Your task to perform on an android device: change the clock display to digital Image 0: 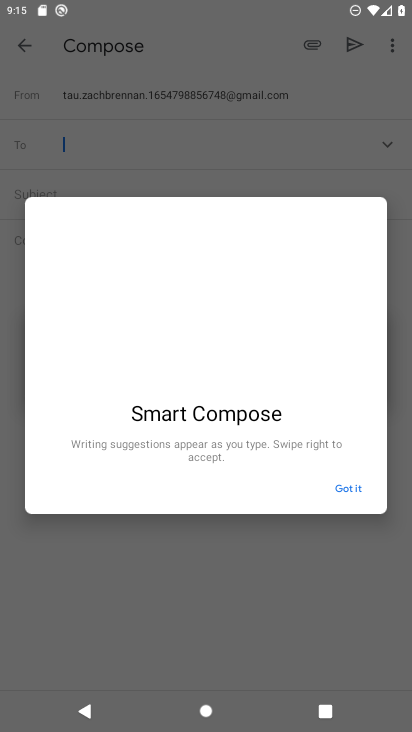
Step 0: press home button
Your task to perform on an android device: change the clock display to digital Image 1: 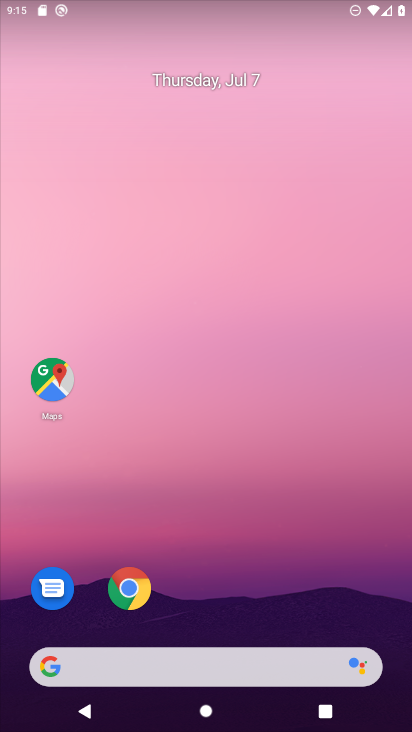
Step 1: drag from (197, 615) to (252, 107)
Your task to perform on an android device: change the clock display to digital Image 2: 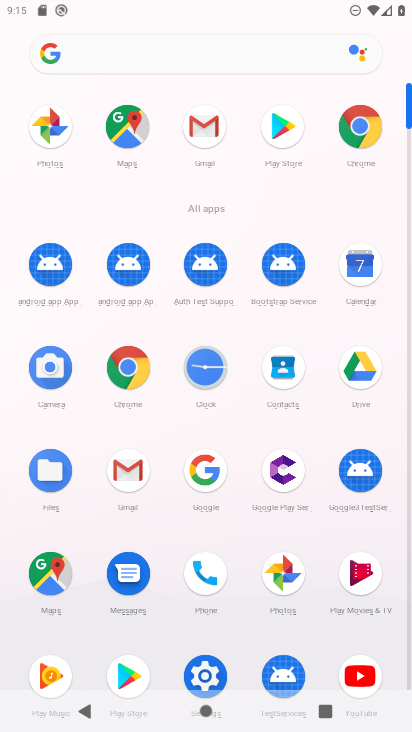
Step 2: click (217, 381)
Your task to perform on an android device: change the clock display to digital Image 3: 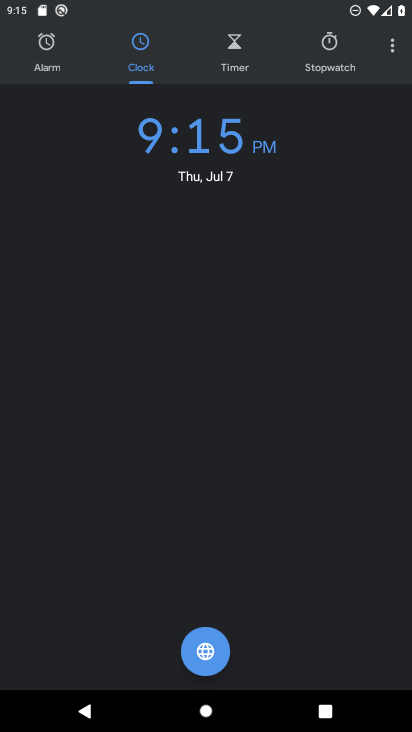
Step 3: click (403, 51)
Your task to perform on an android device: change the clock display to digital Image 4: 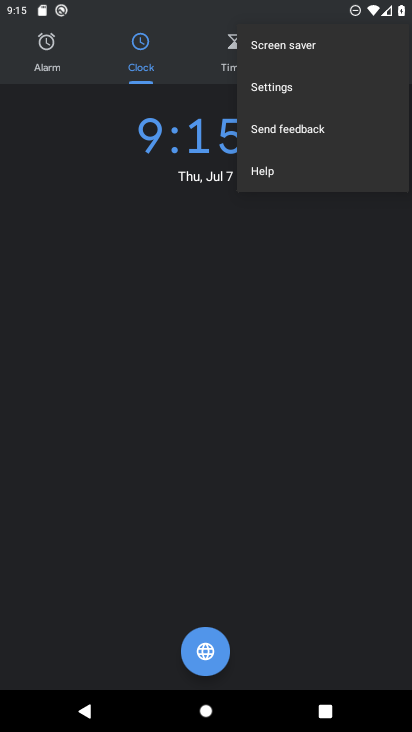
Step 4: click (317, 78)
Your task to perform on an android device: change the clock display to digital Image 5: 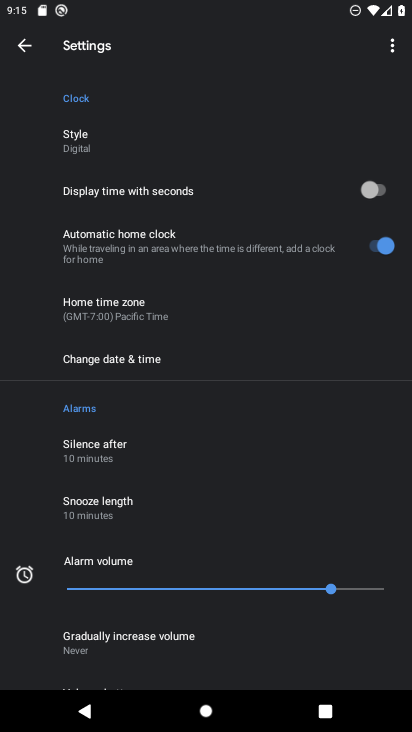
Step 5: click (123, 152)
Your task to perform on an android device: change the clock display to digital Image 6: 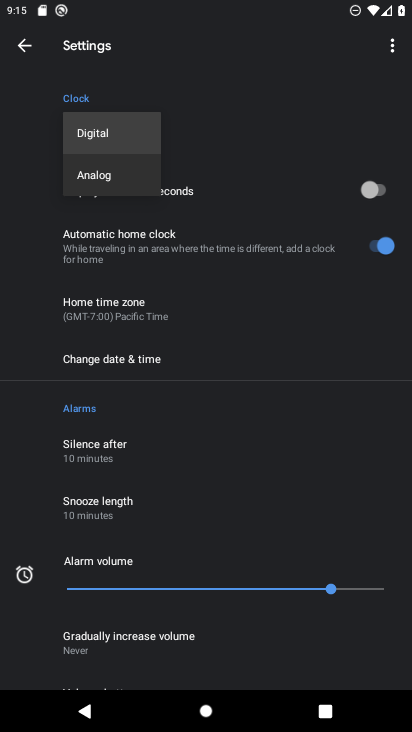
Step 6: task complete